Your task to perform on an android device: Show the shopping cart on ebay. Image 0: 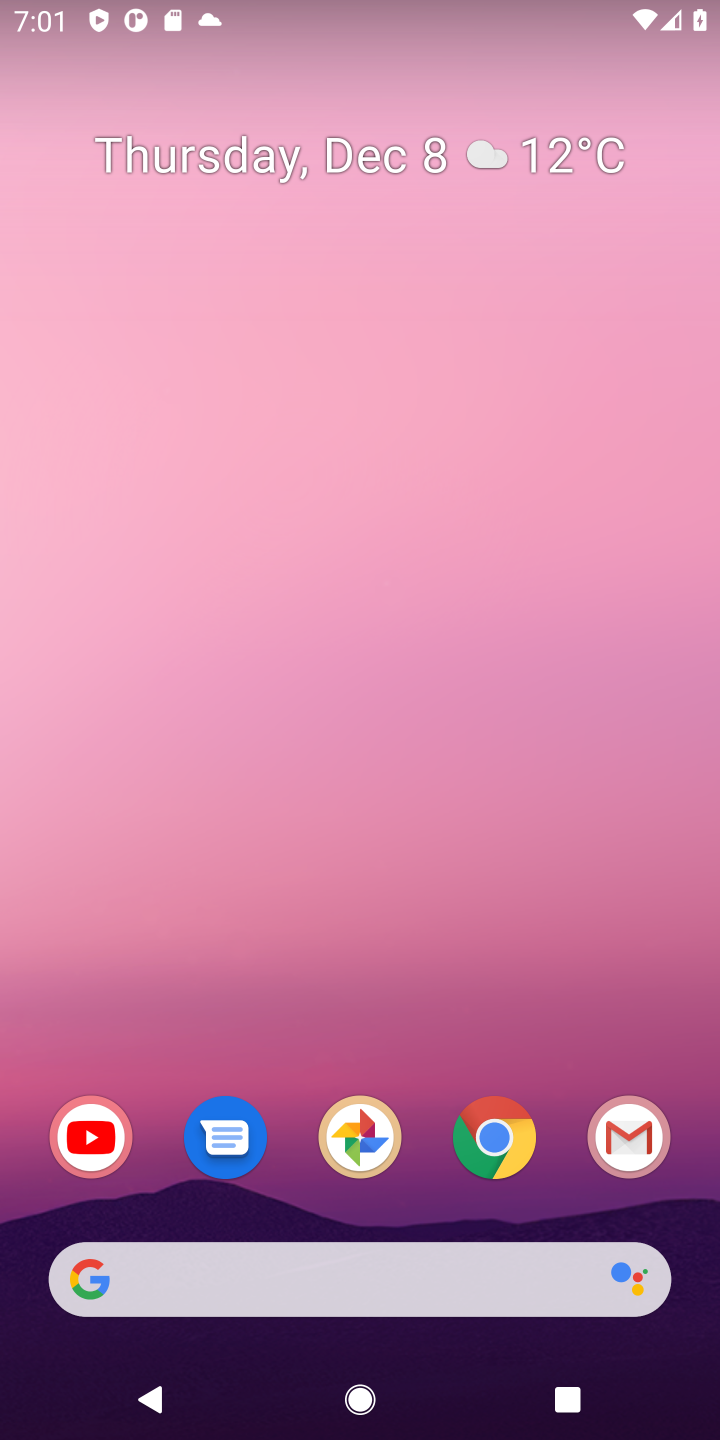
Step 0: click (473, 1146)
Your task to perform on an android device: Show the shopping cart on ebay. Image 1: 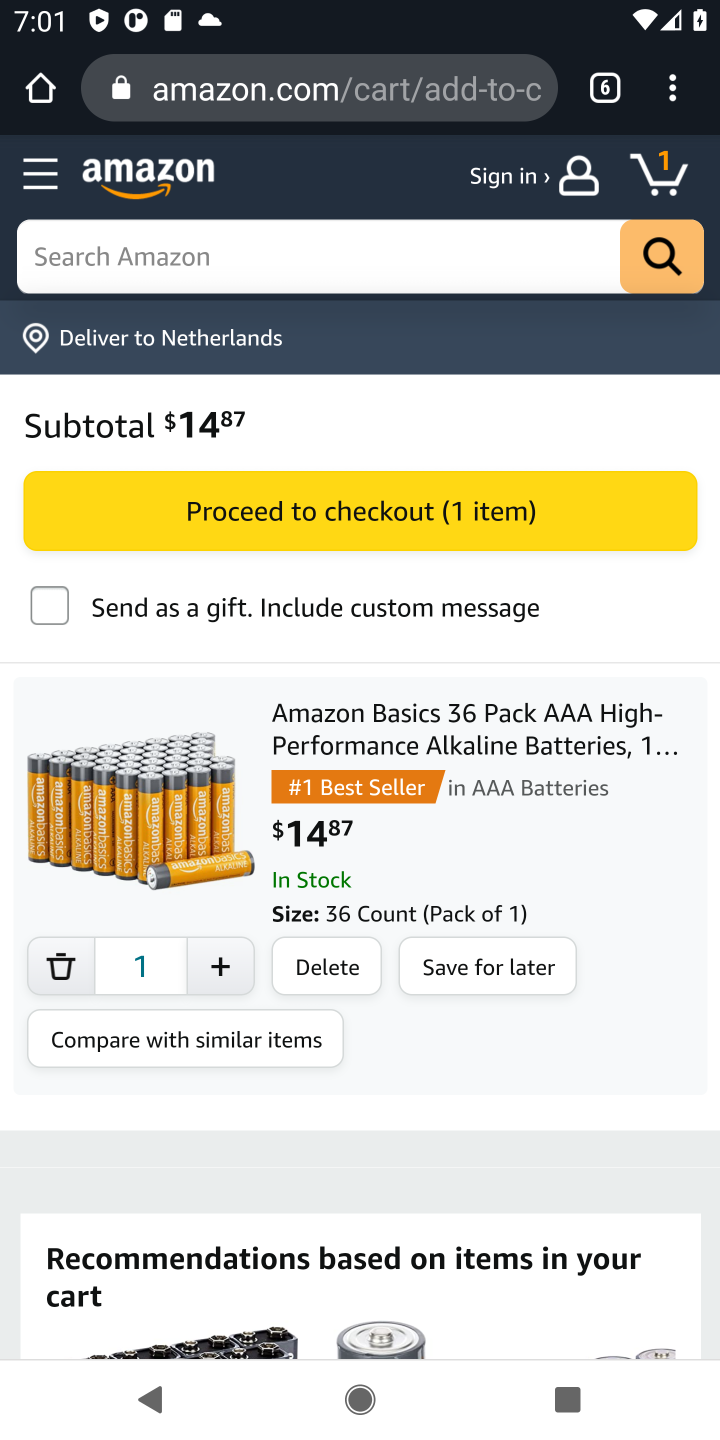
Step 1: click (613, 95)
Your task to perform on an android device: Show the shopping cart on ebay. Image 2: 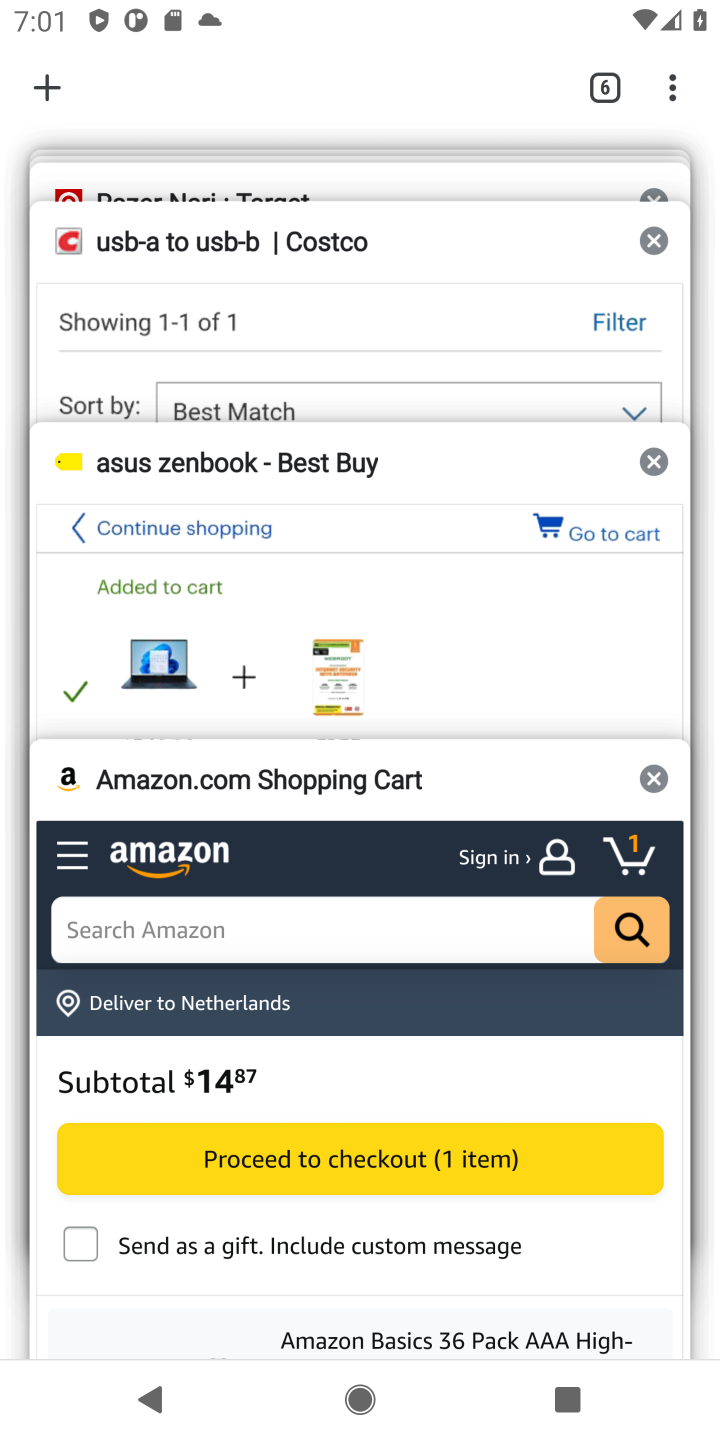
Step 2: drag from (421, 147) to (364, 623)
Your task to perform on an android device: Show the shopping cart on ebay. Image 3: 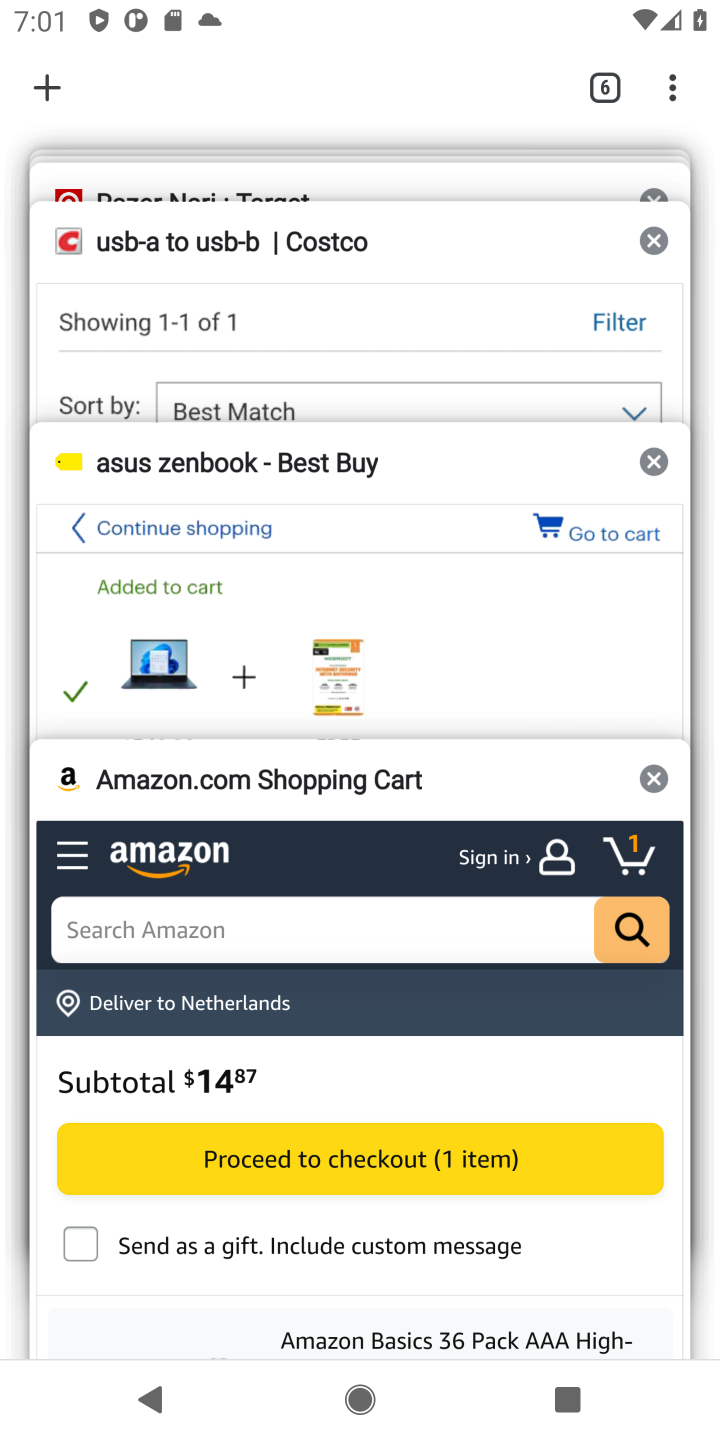
Step 3: drag from (455, 181) to (384, 600)
Your task to perform on an android device: Show the shopping cart on ebay. Image 4: 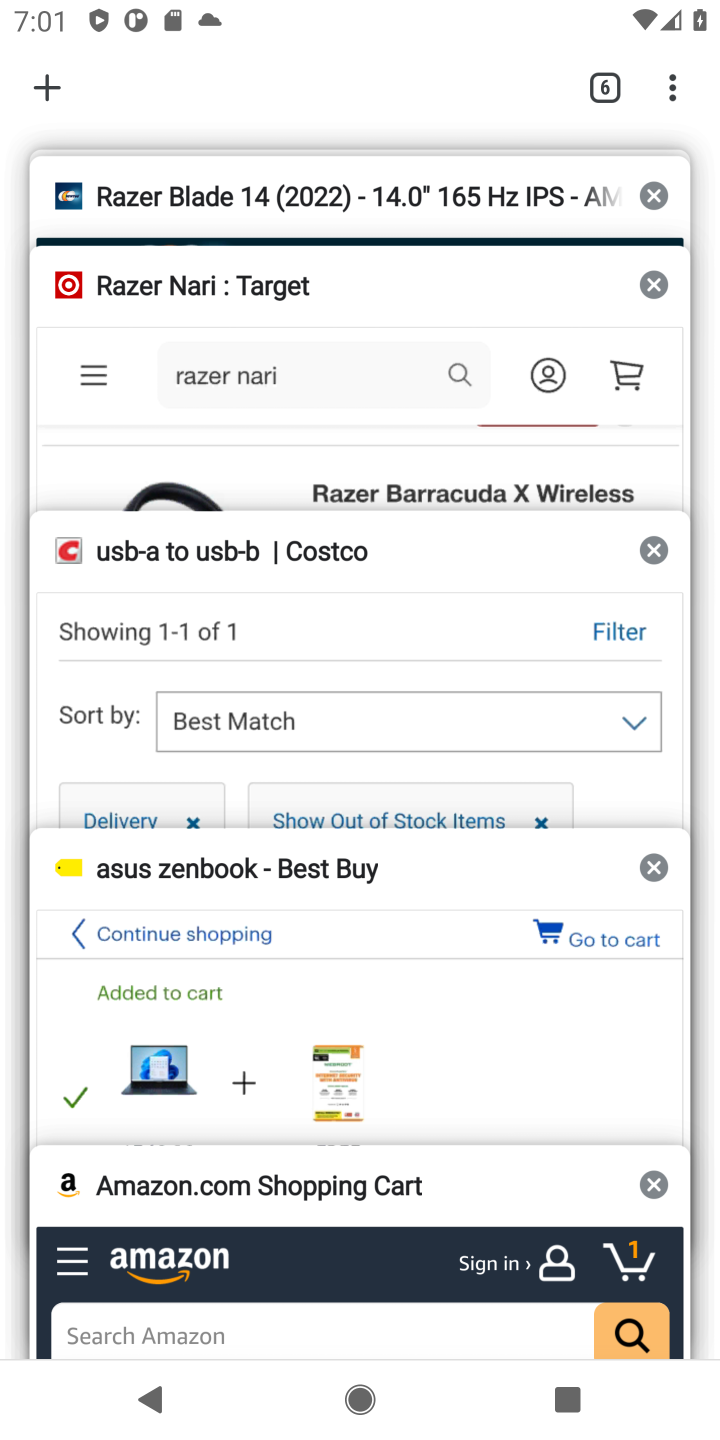
Step 4: drag from (373, 174) to (358, 619)
Your task to perform on an android device: Show the shopping cart on ebay. Image 5: 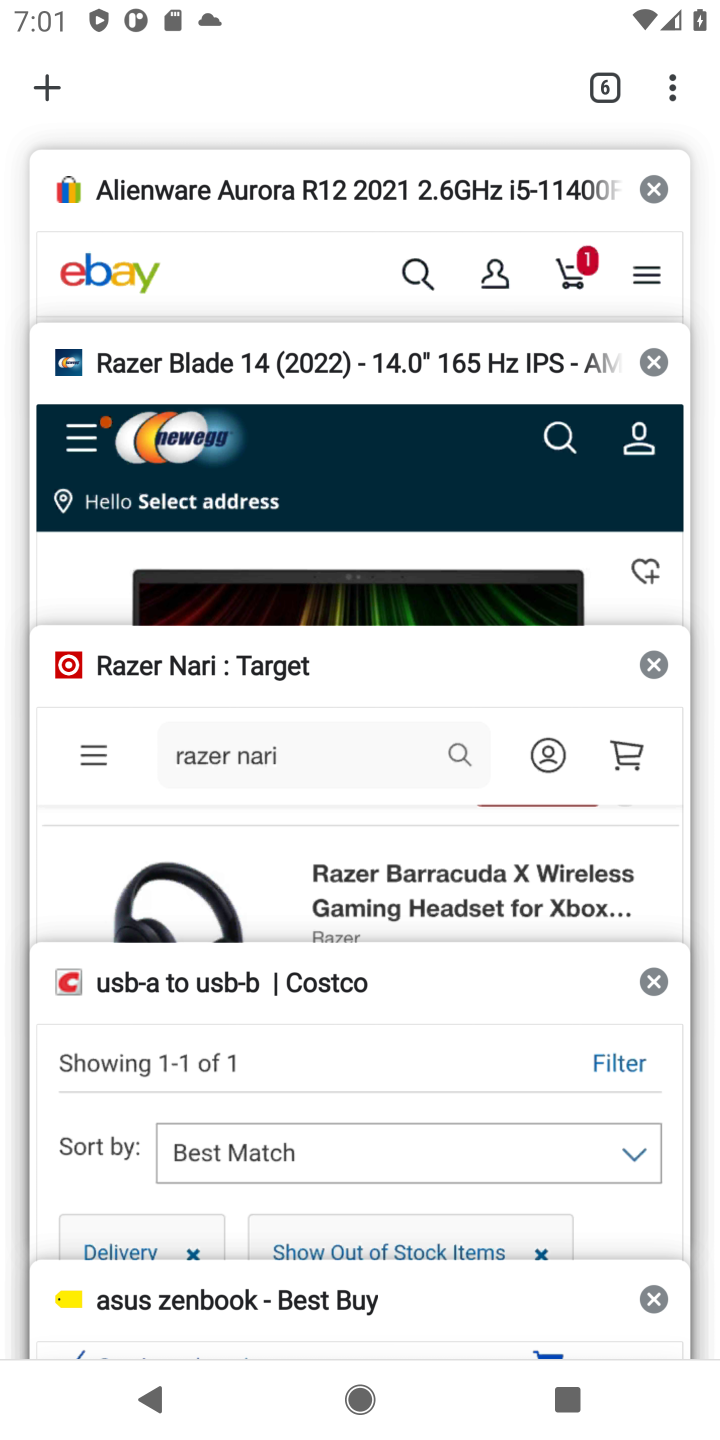
Step 5: click (316, 234)
Your task to perform on an android device: Show the shopping cart on ebay. Image 6: 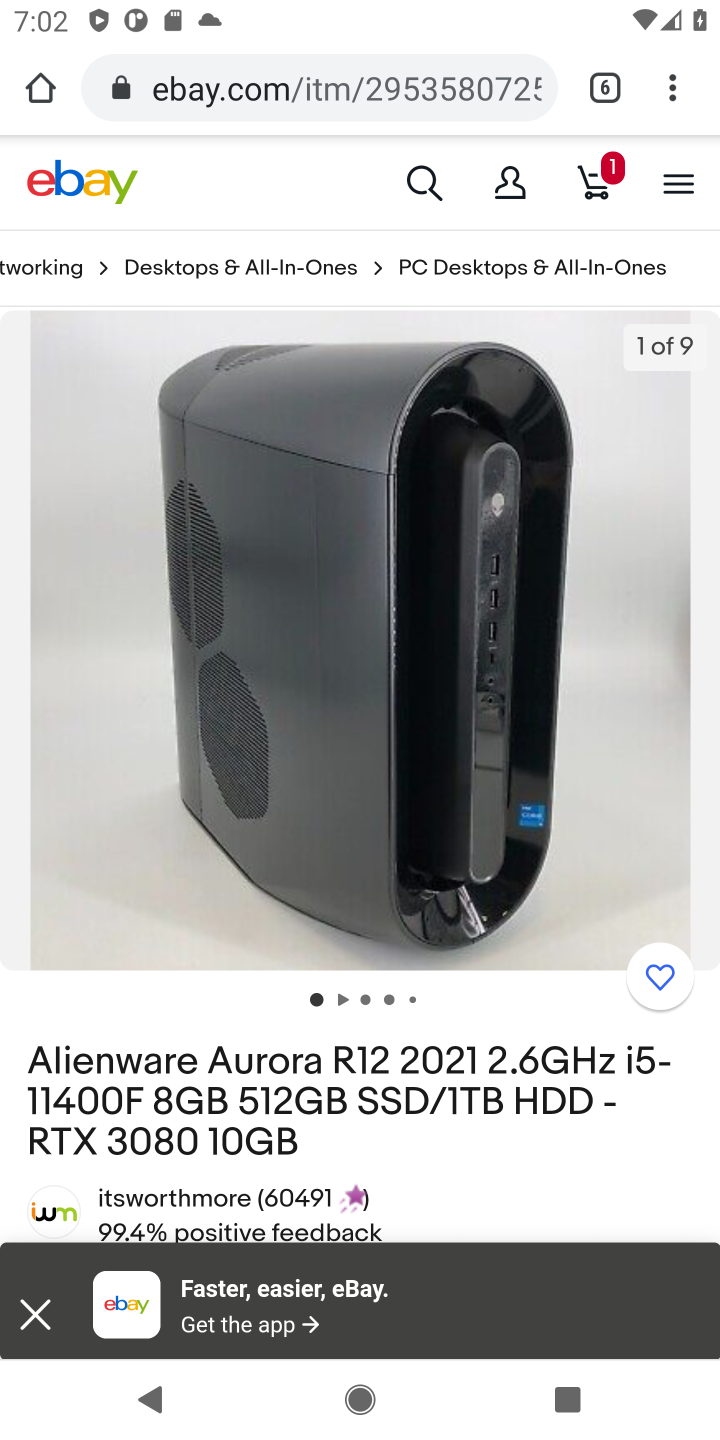
Step 6: click (597, 170)
Your task to perform on an android device: Show the shopping cart on ebay. Image 7: 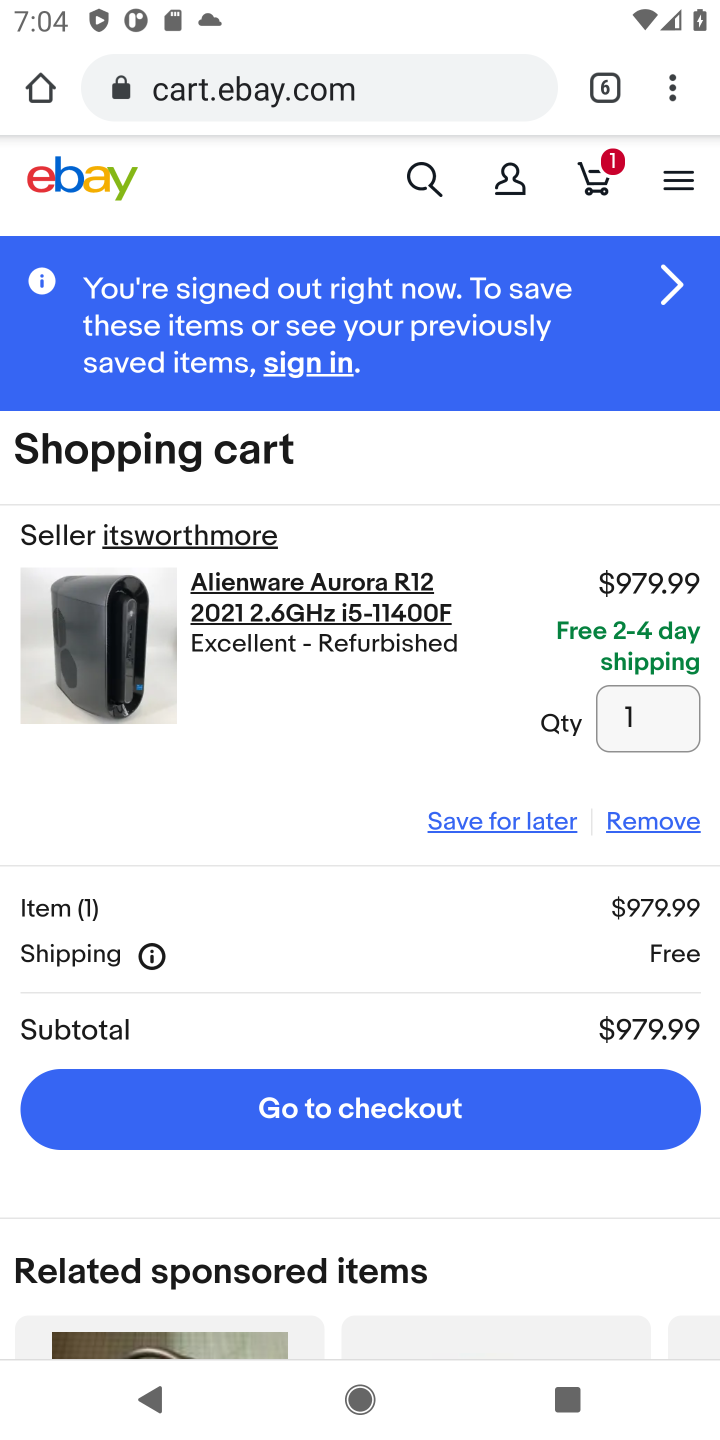
Step 7: task complete